Your task to perform on an android device: Open settings on Google Maps Image 0: 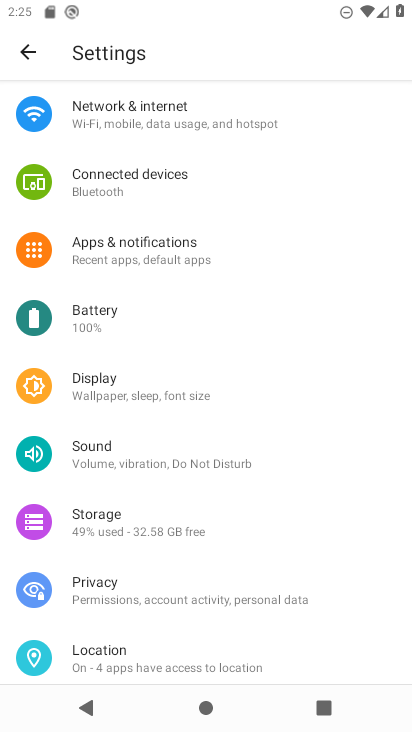
Step 0: press home button
Your task to perform on an android device: Open settings on Google Maps Image 1: 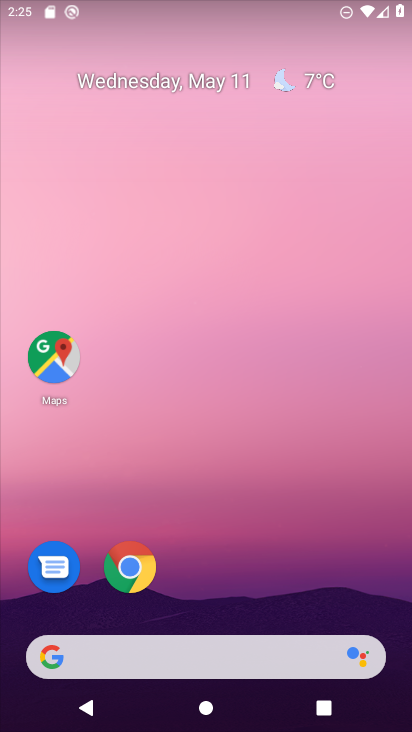
Step 1: click (61, 355)
Your task to perform on an android device: Open settings on Google Maps Image 2: 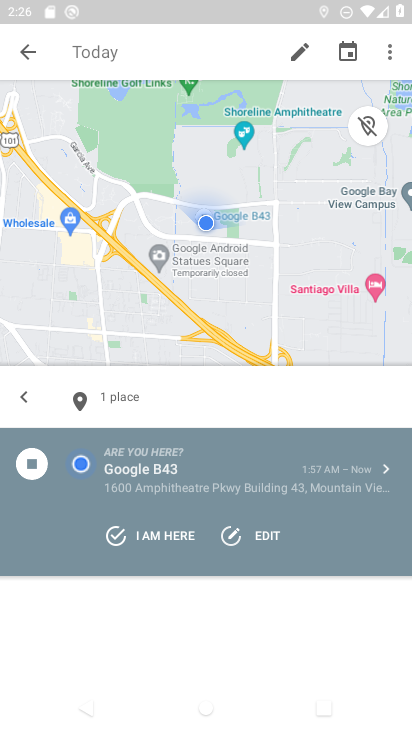
Step 2: click (38, 59)
Your task to perform on an android device: Open settings on Google Maps Image 3: 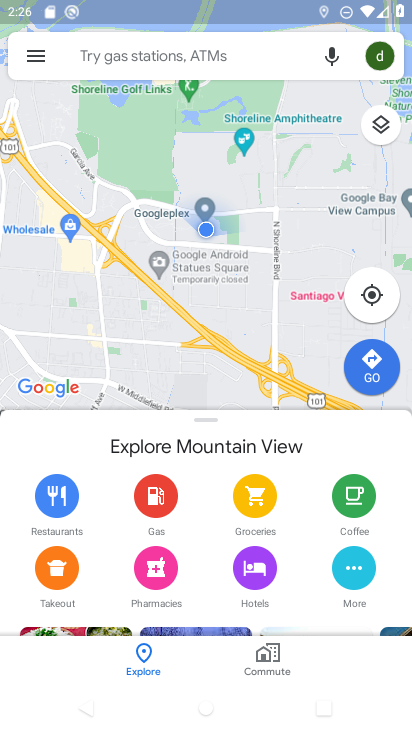
Step 3: click (38, 59)
Your task to perform on an android device: Open settings on Google Maps Image 4: 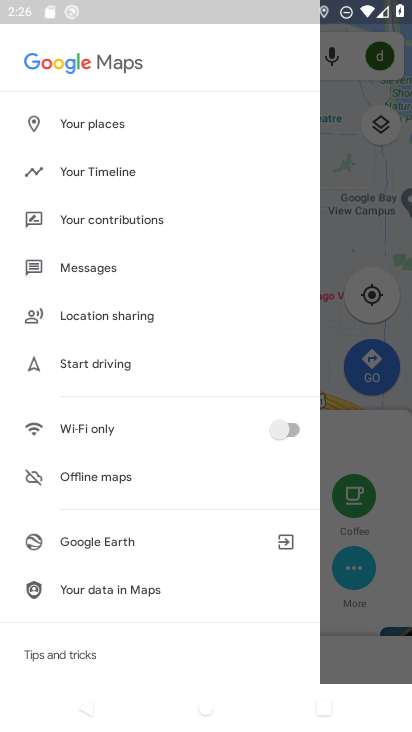
Step 4: drag from (177, 536) to (151, 268)
Your task to perform on an android device: Open settings on Google Maps Image 5: 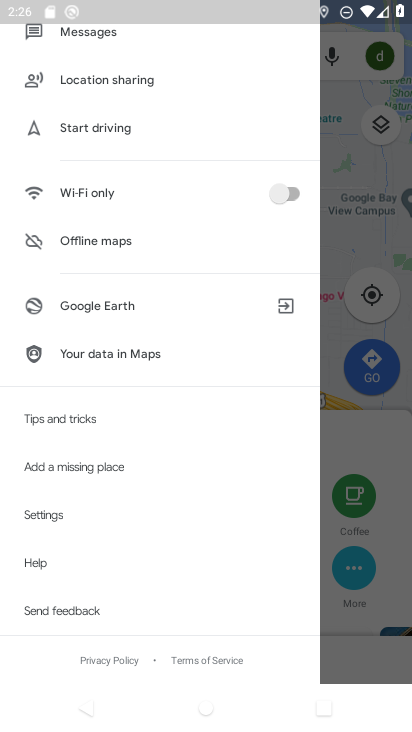
Step 5: click (49, 514)
Your task to perform on an android device: Open settings on Google Maps Image 6: 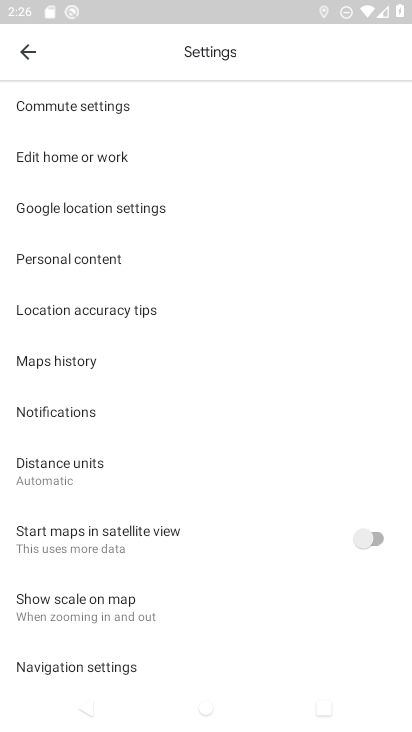
Step 6: task complete